Your task to perform on an android device: turn off wifi Image 0: 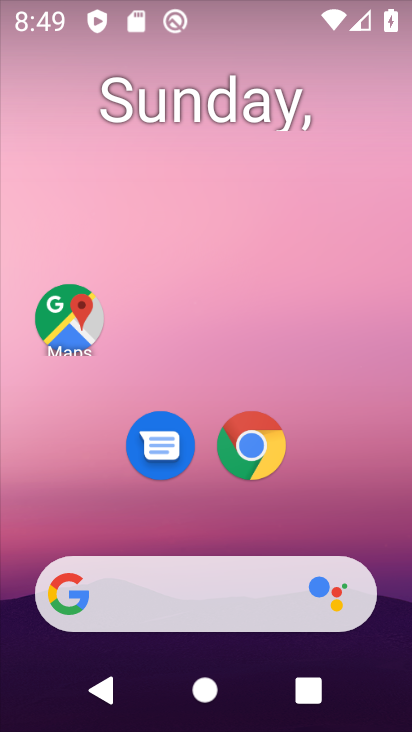
Step 0: drag from (231, 535) to (233, 75)
Your task to perform on an android device: turn off wifi Image 1: 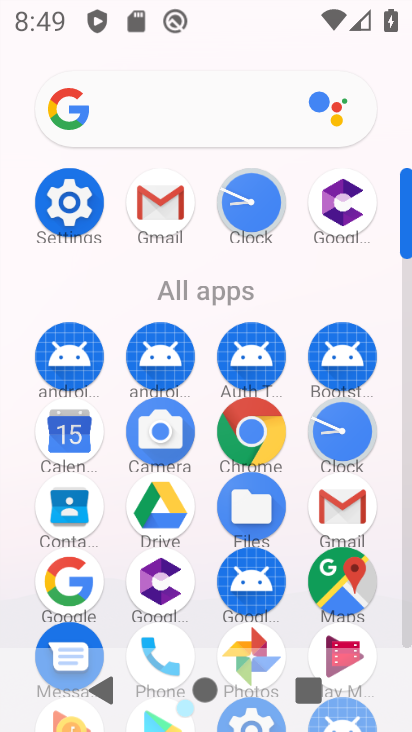
Step 1: click (51, 220)
Your task to perform on an android device: turn off wifi Image 2: 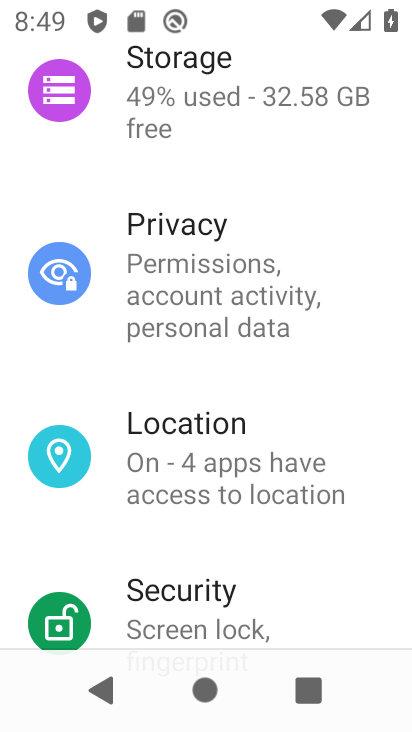
Step 2: drag from (189, 154) to (251, 568)
Your task to perform on an android device: turn off wifi Image 3: 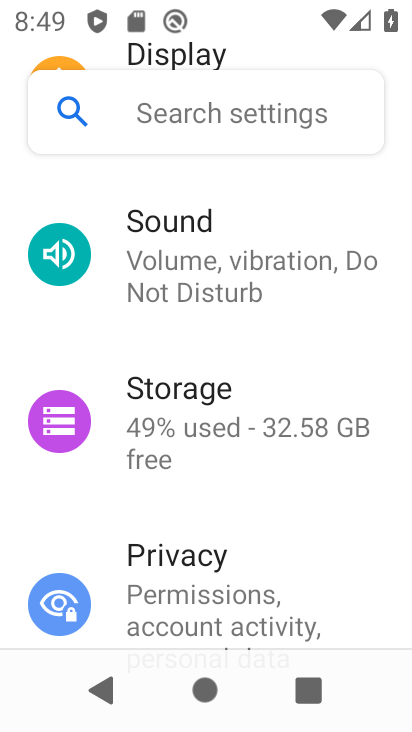
Step 3: drag from (274, 195) to (291, 561)
Your task to perform on an android device: turn off wifi Image 4: 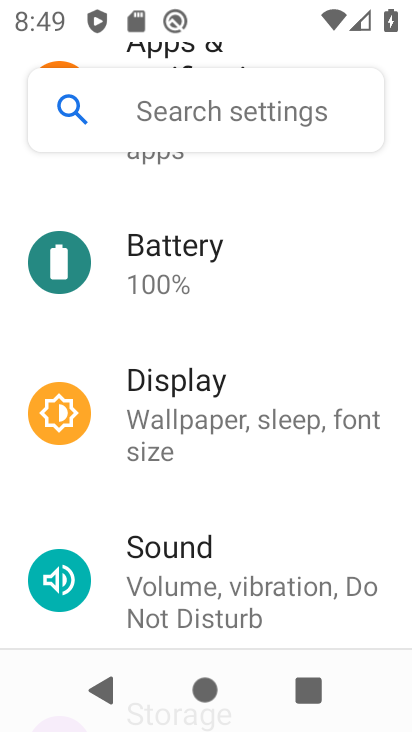
Step 4: drag from (268, 238) to (299, 545)
Your task to perform on an android device: turn off wifi Image 5: 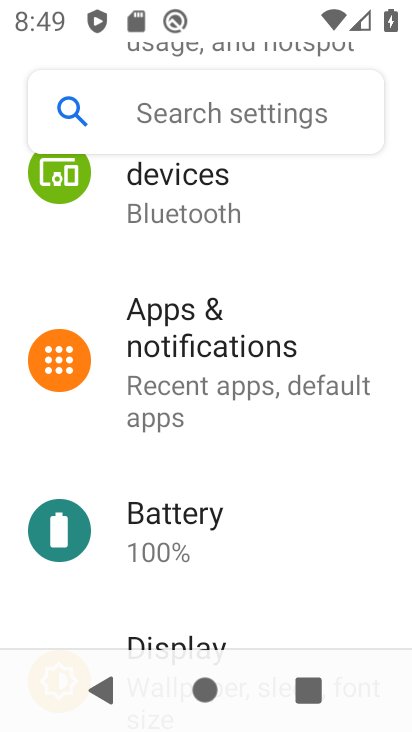
Step 5: drag from (278, 222) to (296, 545)
Your task to perform on an android device: turn off wifi Image 6: 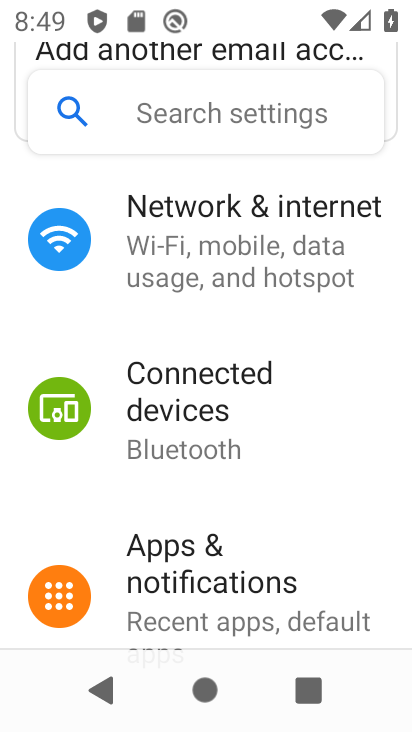
Step 6: click (235, 270)
Your task to perform on an android device: turn off wifi Image 7: 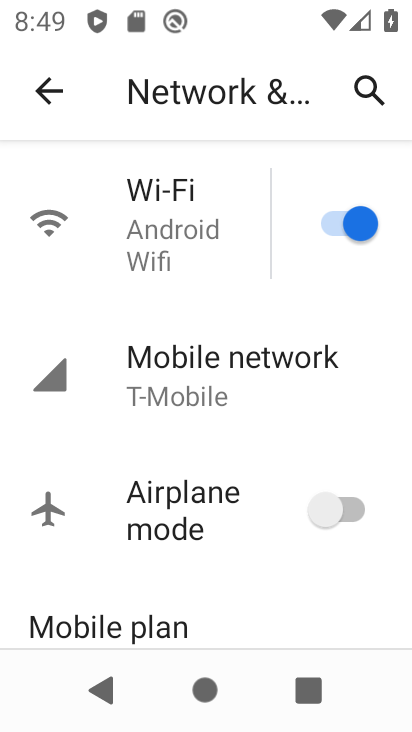
Step 7: click (328, 230)
Your task to perform on an android device: turn off wifi Image 8: 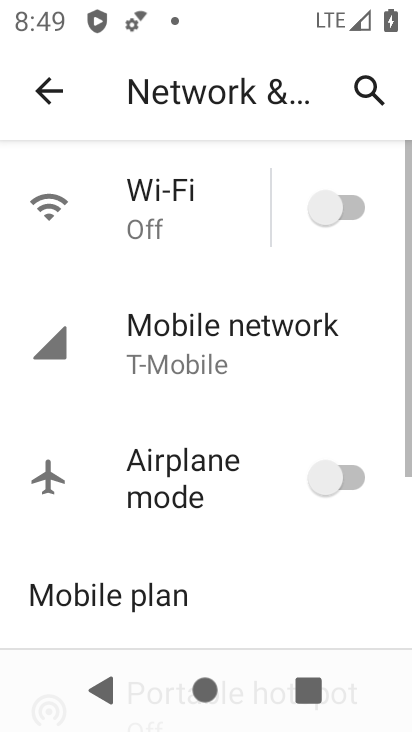
Step 8: task complete